Your task to perform on an android device: refresh tabs in the chrome app Image 0: 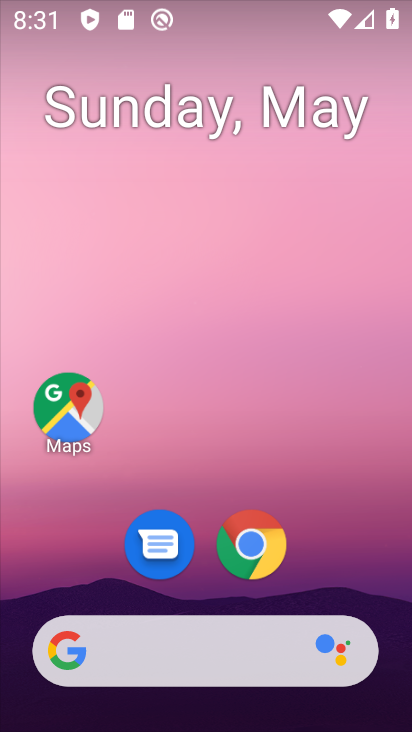
Step 0: drag from (344, 503) to (346, 8)
Your task to perform on an android device: refresh tabs in the chrome app Image 1: 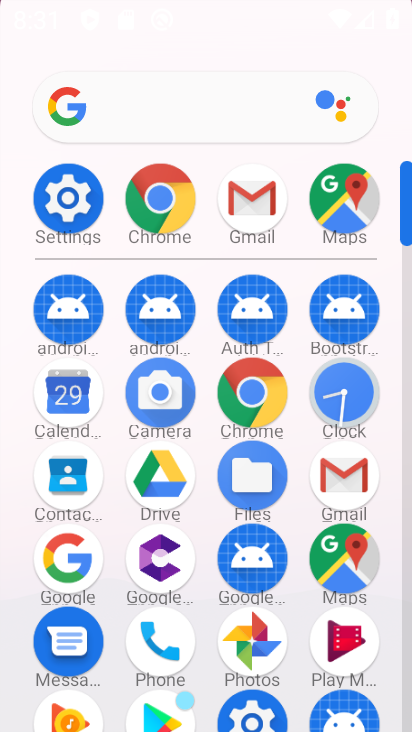
Step 1: click (164, 274)
Your task to perform on an android device: refresh tabs in the chrome app Image 2: 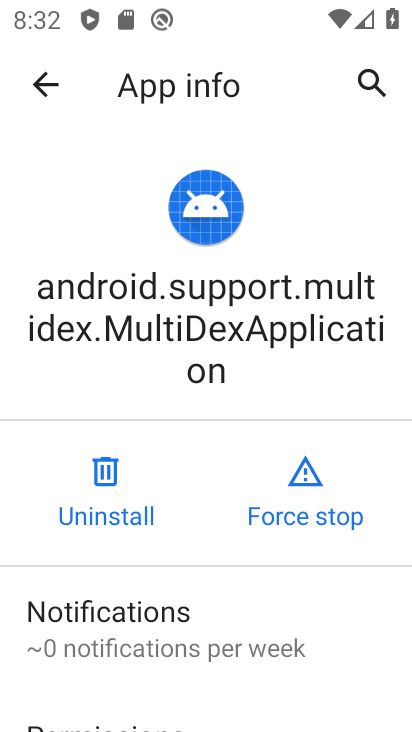
Step 2: click (52, 84)
Your task to perform on an android device: refresh tabs in the chrome app Image 3: 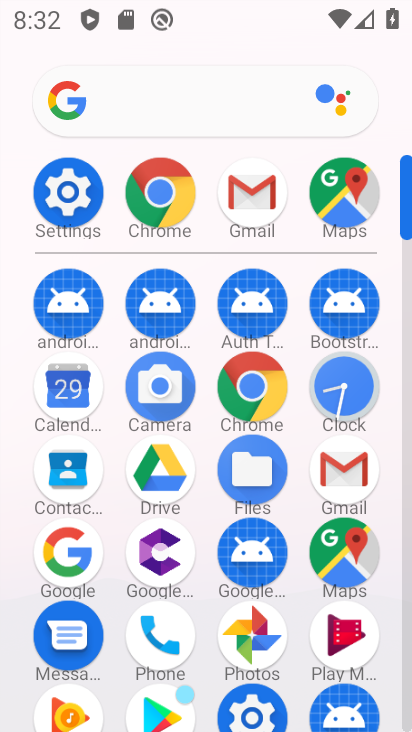
Step 3: click (157, 210)
Your task to perform on an android device: refresh tabs in the chrome app Image 4: 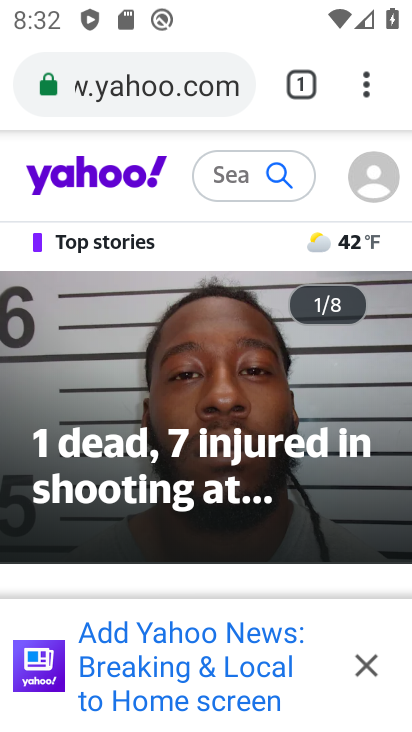
Step 4: click (369, 97)
Your task to perform on an android device: refresh tabs in the chrome app Image 5: 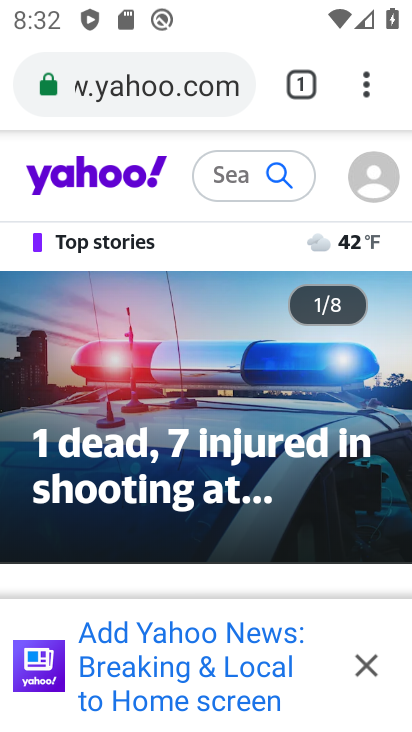
Step 5: task complete